Your task to perform on an android device: toggle sleep mode Image 0: 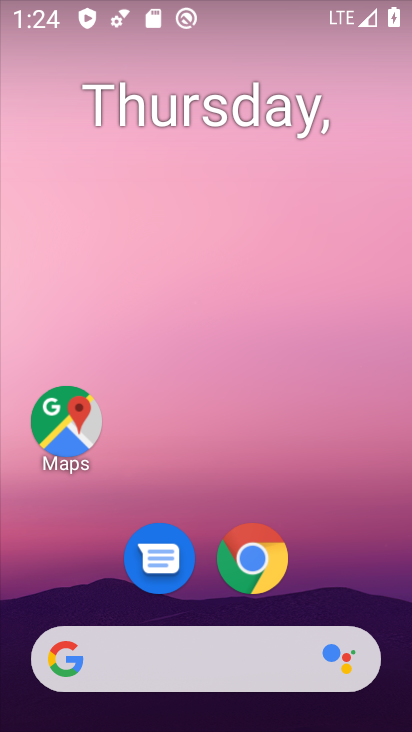
Step 0: drag from (358, 524) to (376, 1)
Your task to perform on an android device: toggle sleep mode Image 1: 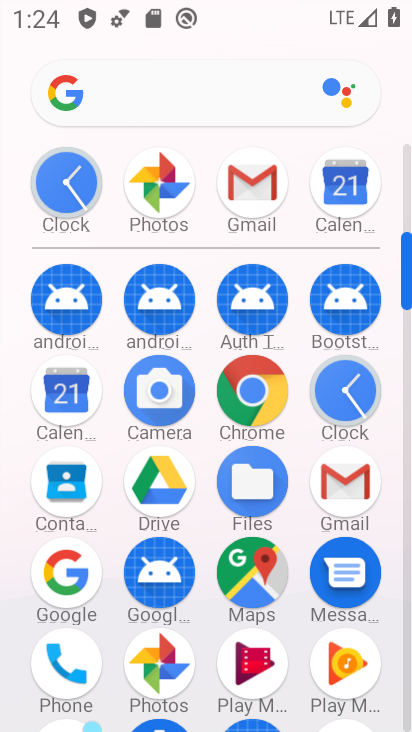
Step 1: click (404, 672)
Your task to perform on an android device: toggle sleep mode Image 2: 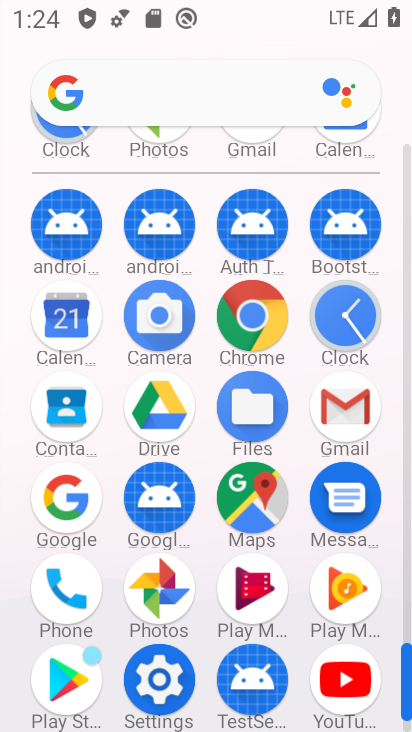
Step 2: click (158, 677)
Your task to perform on an android device: toggle sleep mode Image 3: 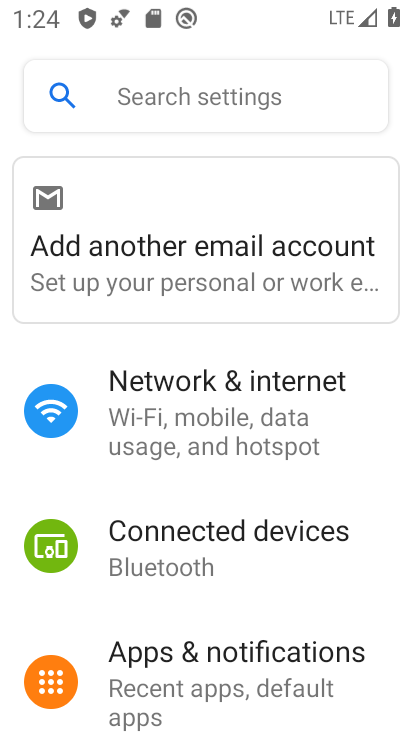
Step 3: drag from (307, 608) to (315, 191)
Your task to perform on an android device: toggle sleep mode Image 4: 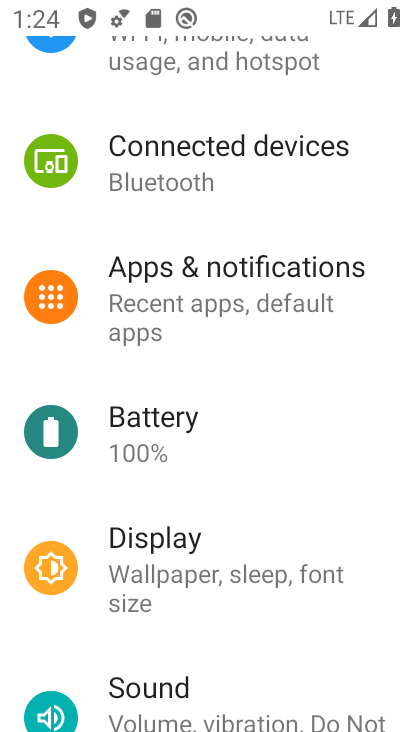
Step 4: drag from (291, 635) to (285, 192)
Your task to perform on an android device: toggle sleep mode Image 5: 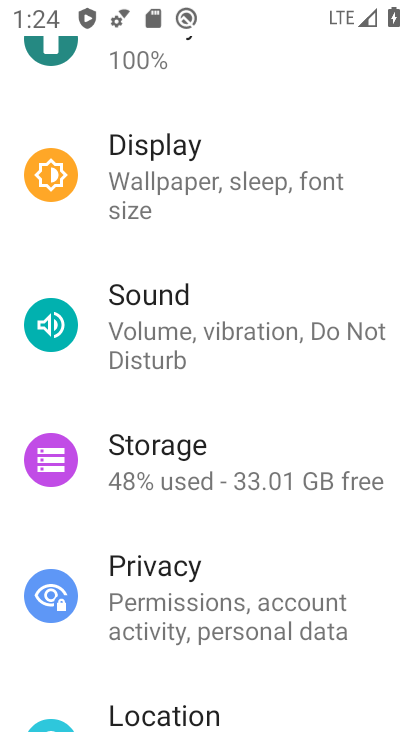
Step 5: drag from (285, 681) to (305, 475)
Your task to perform on an android device: toggle sleep mode Image 6: 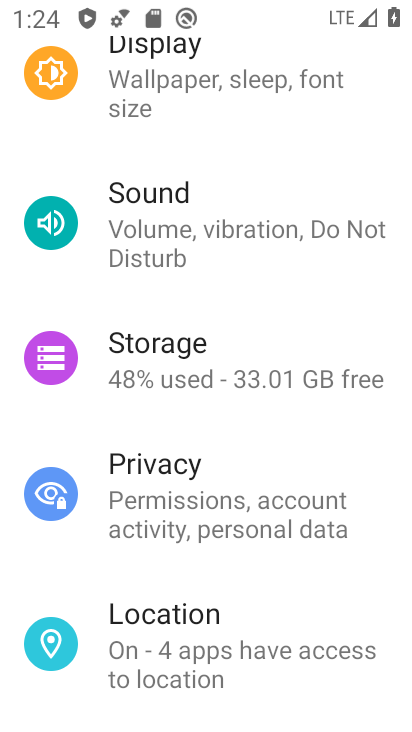
Step 6: click (192, 87)
Your task to perform on an android device: toggle sleep mode Image 7: 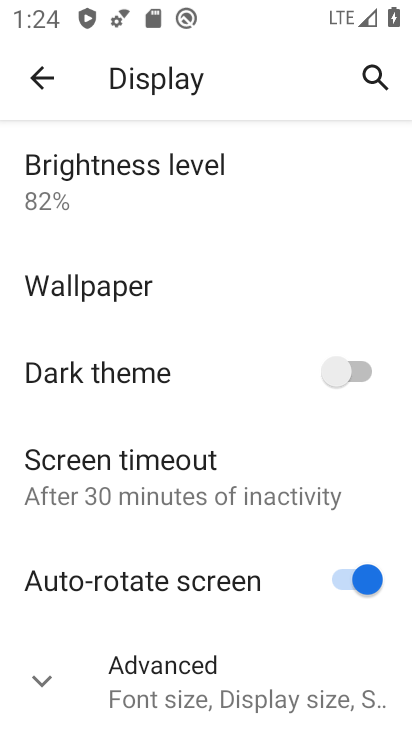
Step 7: task complete